Your task to perform on an android device: Go to privacy settings Image 0: 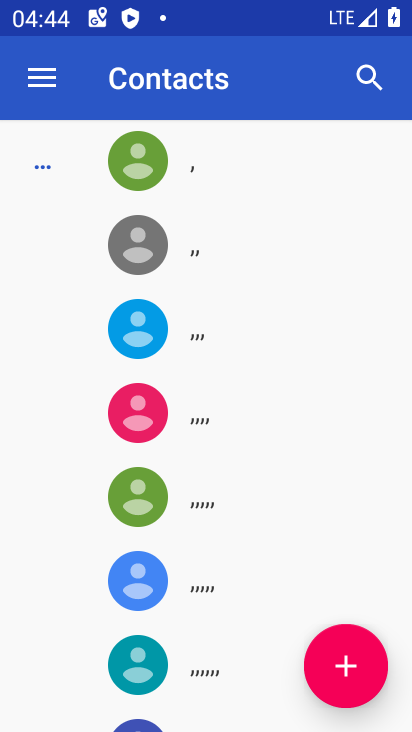
Step 0: press home button
Your task to perform on an android device: Go to privacy settings Image 1: 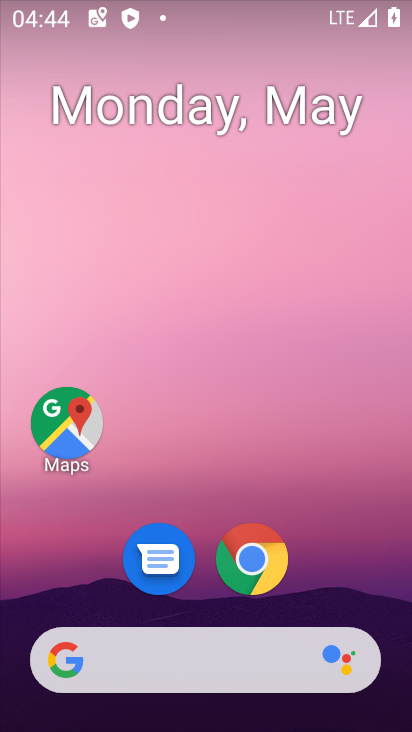
Step 1: drag from (230, 641) to (271, 133)
Your task to perform on an android device: Go to privacy settings Image 2: 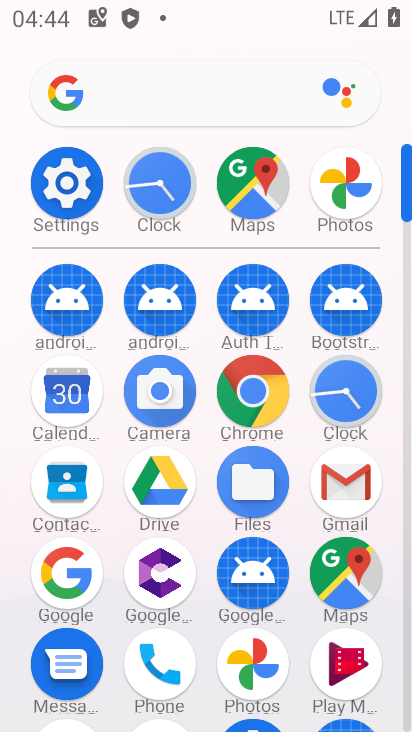
Step 2: click (74, 183)
Your task to perform on an android device: Go to privacy settings Image 3: 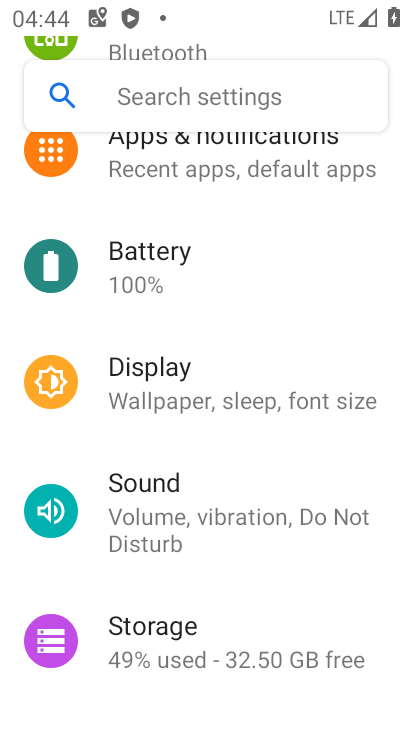
Step 3: drag from (230, 650) to (305, 121)
Your task to perform on an android device: Go to privacy settings Image 4: 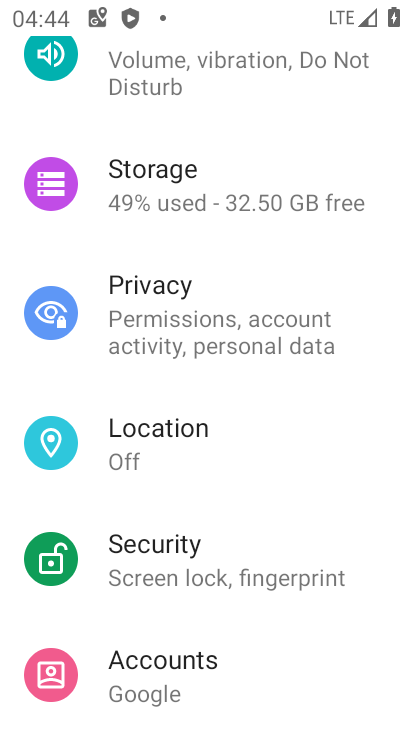
Step 4: click (233, 312)
Your task to perform on an android device: Go to privacy settings Image 5: 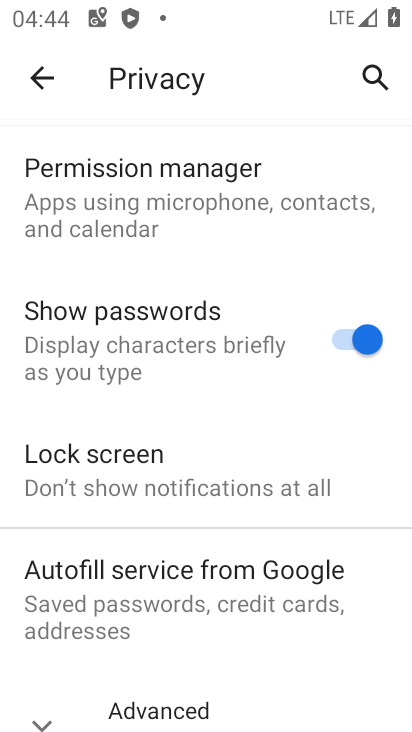
Step 5: task complete